Your task to perform on an android device: add a contact in the contacts app Image 0: 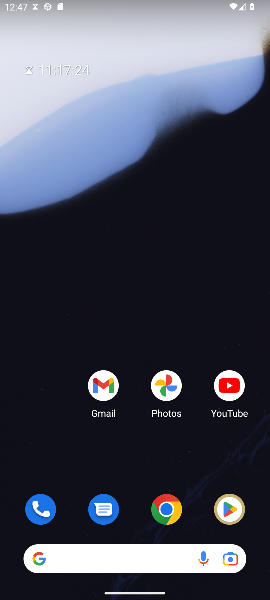
Step 0: drag from (132, 527) to (252, 107)
Your task to perform on an android device: add a contact in the contacts app Image 1: 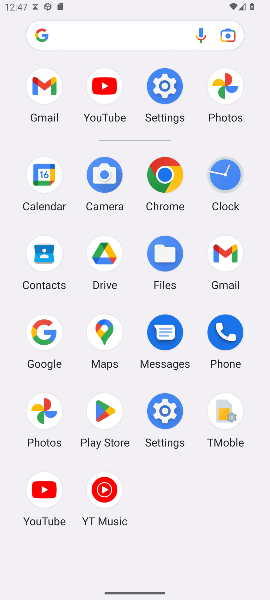
Step 1: click (53, 253)
Your task to perform on an android device: add a contact in the contacts app Image 2: 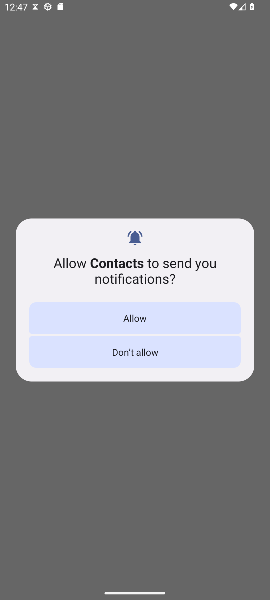
Step 2: click (139, 316)
Your task to perform on an android device: add a contact in the contacts app Image 3: 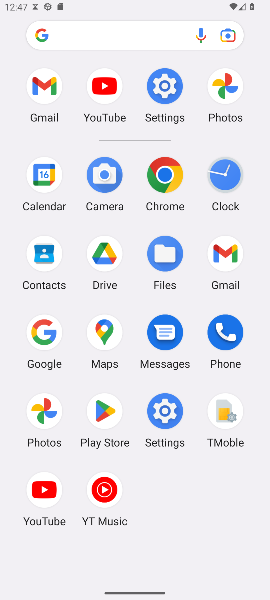
Step 3: click (48, 272)
Your task to perform on an android device: add a contact in the contacts app Image 4: 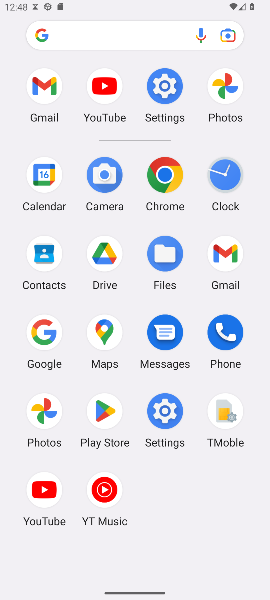
Step 4: click (48, 272)
Your task to perform on an android device: add a contact in the contacts app Image 5: 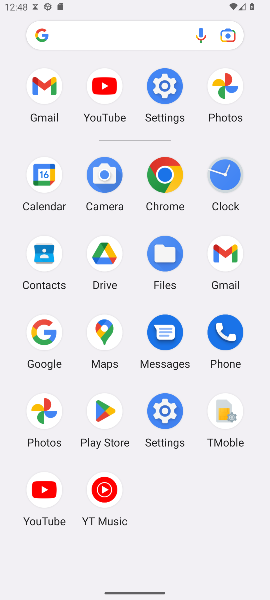
Step 5: task complete